Your task to perform on an android device: visit the assistant section in the google photos Image 0: 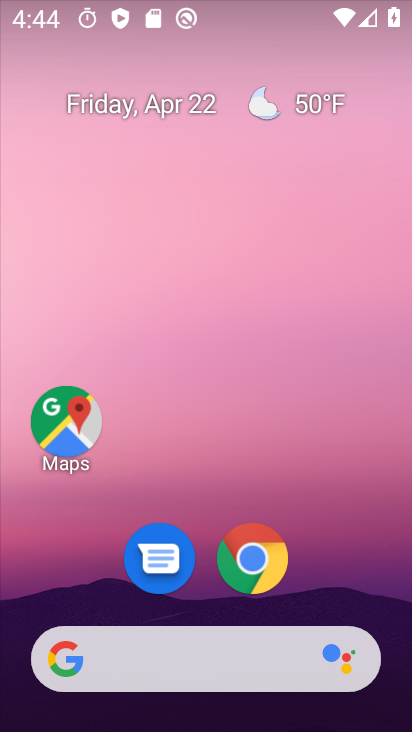
Step 0: drag from (355, 559) to (236, 178)
Your task to perform on an android device: visit the assistant section in the google photos Image 1: 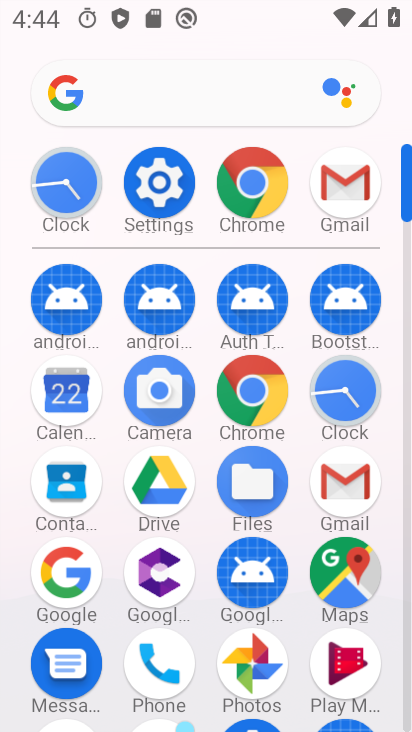
Step 1: drag from (178, 585) to (214, 315)
Your task to perform on an android device: visit the assistant section in the google photos Image 2: 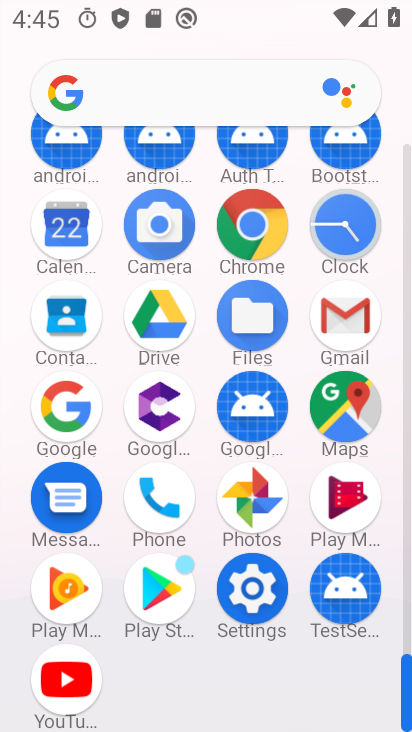
Step 2: click (242, 503)
Your task to perform on an android device: visit the assistant section in the google photos Image 3: 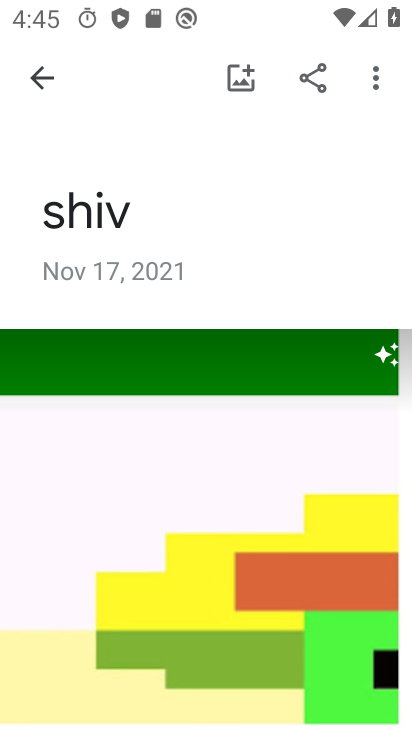
Step 3: click (38, 88)
Your task to perform on an android device: visit the assistant section in the google photos Image 4: 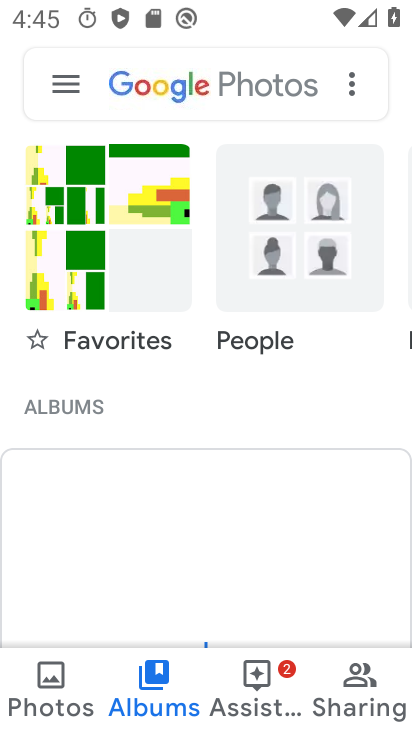
Step 4: click (252, 691)
Your task to perform on an android device: visit the assistant section in the google photos Image 5: 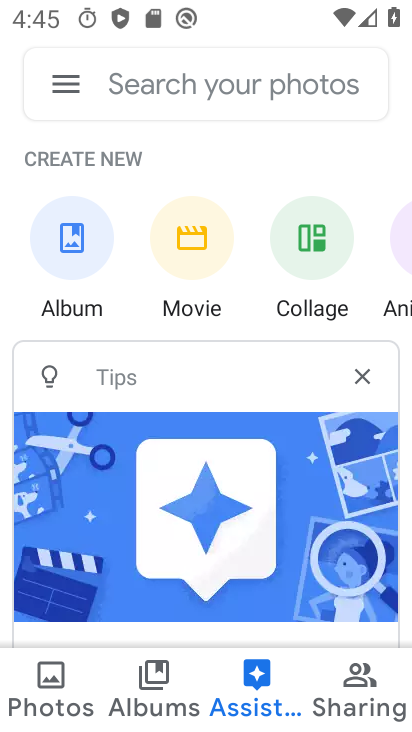
Step 5: task complete